Your task to perform on an android device: Turn off the flashlight Image 0: 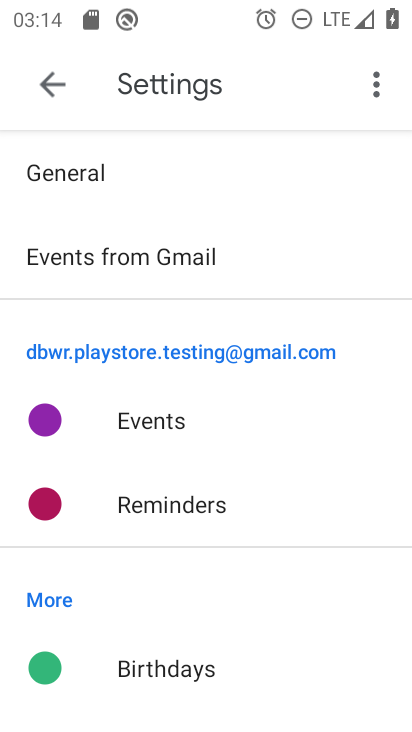
Step 0: press home button
Your task to perform on an android device: Turn off the flashlight Image 1: 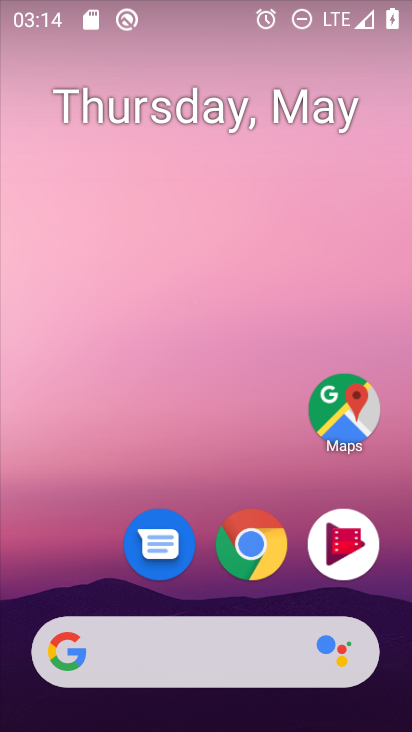
Step 1: drag from (227, 19) to (216, 428)
Your task to perform on an android device: Turn off the flashlight Image 2: 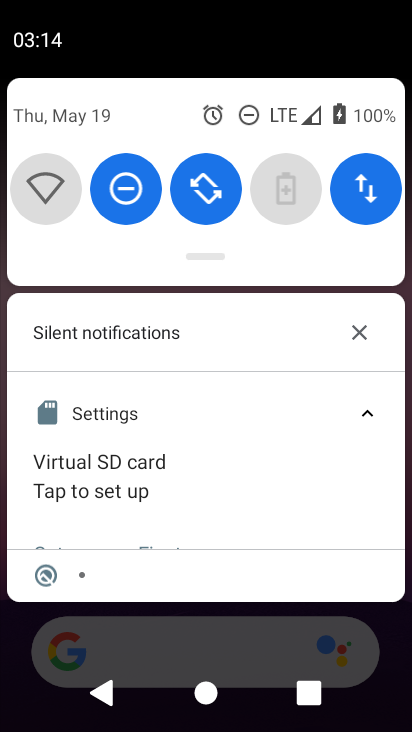
Step 2: drag from (161, 105) to (165, 398)
Your task to perform on an android device: Turn off the flashlight Image 3: 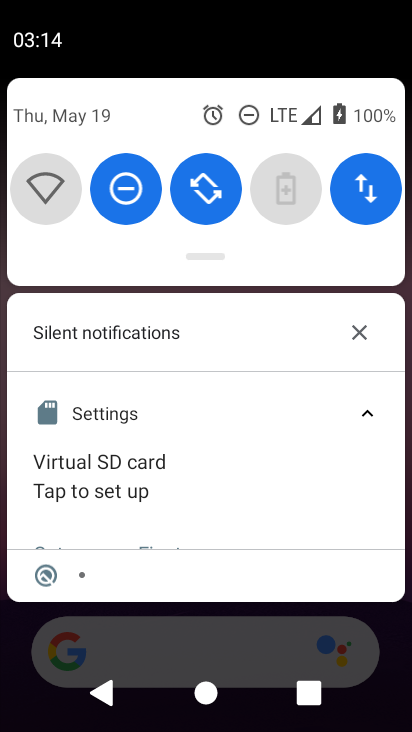
Step 3: drag from (243, 134) to (242, 399)
Your task to perform on an android device: Turn off the flashlight Image 4: 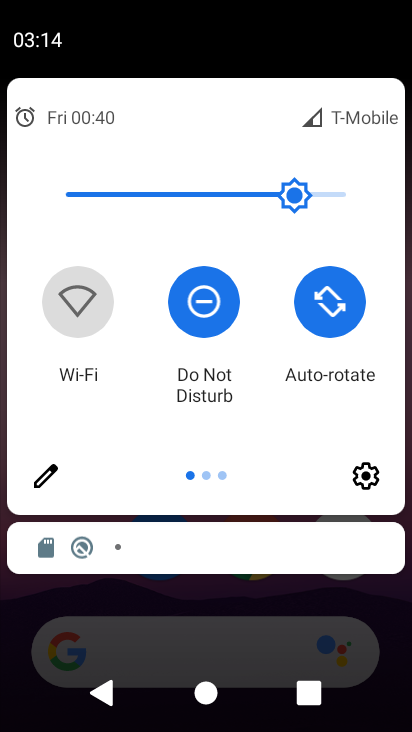
Step 4: click (50, 486)
Your task to perform on an android device: Turn off the flashlight Image 5: 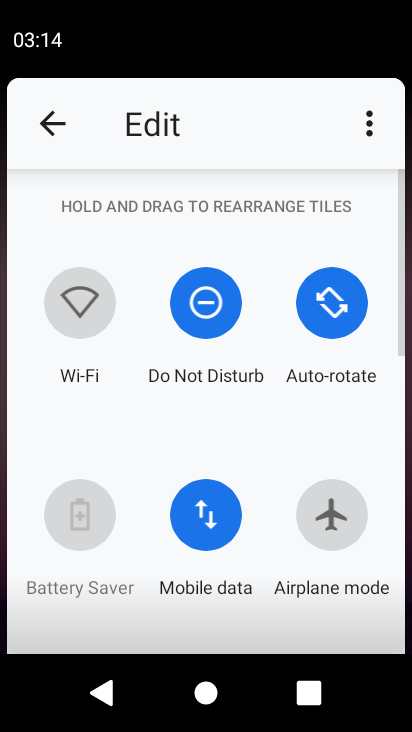
Step 5: task complete